Your task to perform on an android device: toggle priority inbox in the gmail app Image 0: 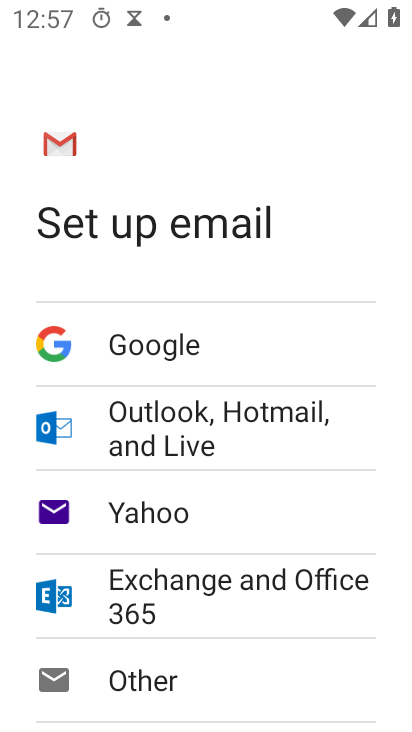
Step 0: press home button
Your task to perform on an android device: toggle priority inbox in the gmail app Image 1: 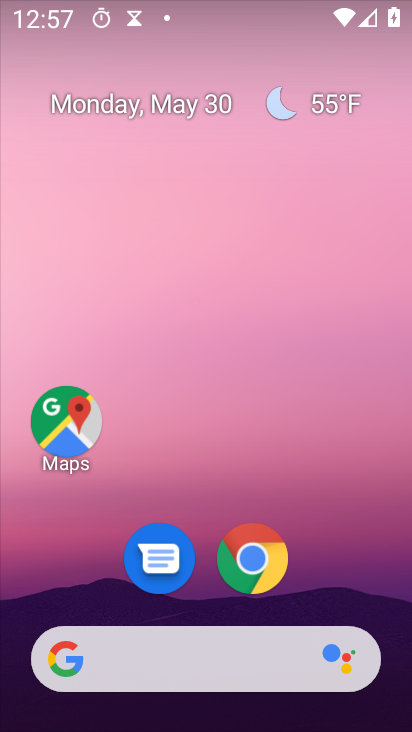
Step 1: drag from (347, 498) to (33, 440)
Your task to perform on an android device: toggle priority inbox in the gmail app Image 2: 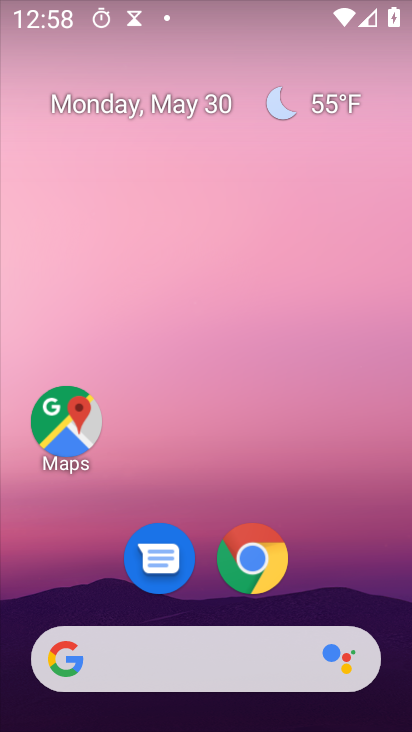
Step 2: drag from (344, 546) to (266, 49)
Your task to perform on an android device: toggle priority inbox in the gmail app Image 3: 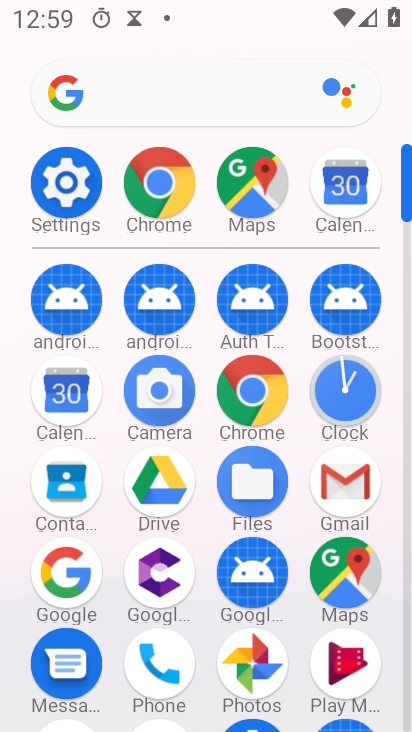
Step 3: click (337, 491)
Your task to perform on an android device: toggle priority inbox in the gmail app Image 4: 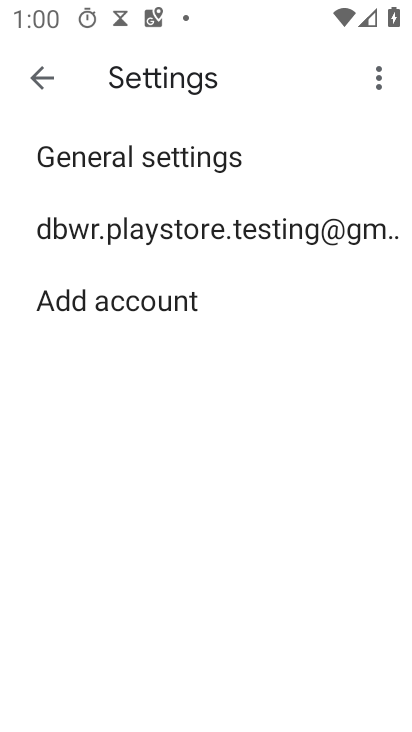
Step 4: click (34, 70)
Your task to perform on an android device: toggle priority inbox in the gmail app Image 5: 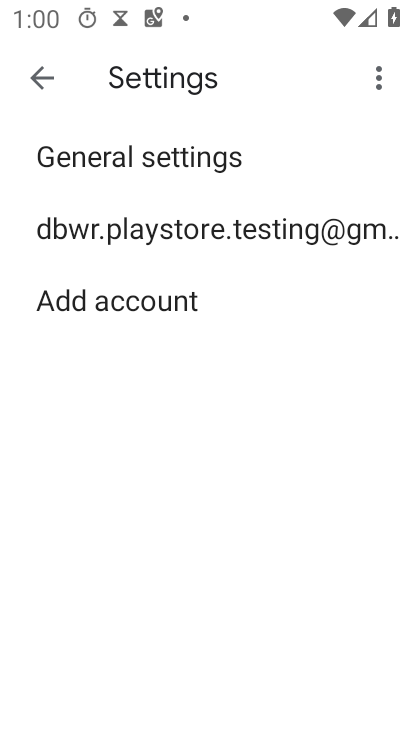
Step 5: click (33, 74)
Your task to perform on an android device: toggle priority inbox in the gmail app Image 6: 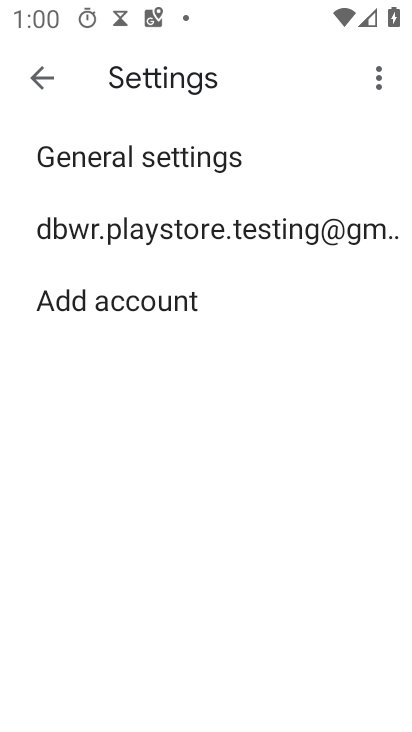
Step 6: click (57, 93)
Your task to perform on an android device: toggle priority inbox in the gmail app Image 7: 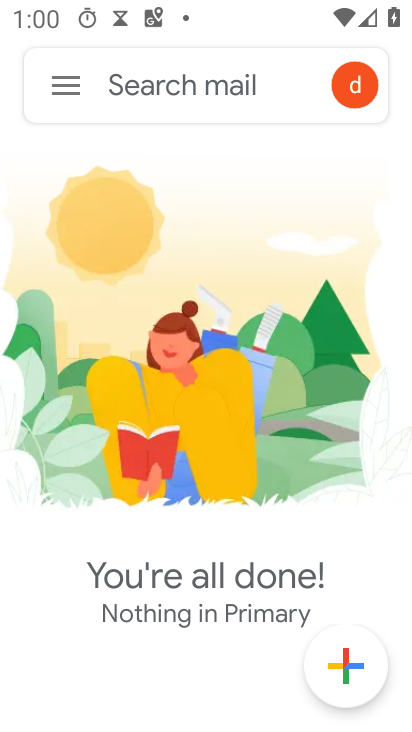
Step 7: click (57, 92)
Your task to perform on an android device: toggle priority inbox in the gmail app Image 8: 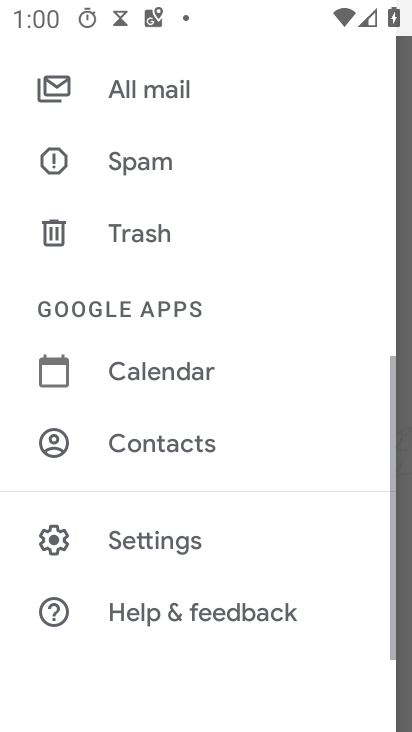
Step 8: drag from (202, 652) to (169, 295)
Your task to perform on an android device: toggle priority inbox in the gmail app Image 9: 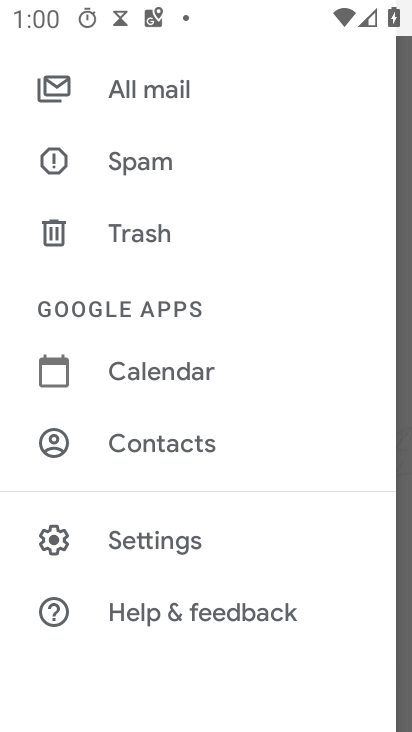
Step 9: click (143, 544)
Your task to perform on an android device: toggle priority inbox in the gmail app Image 10: 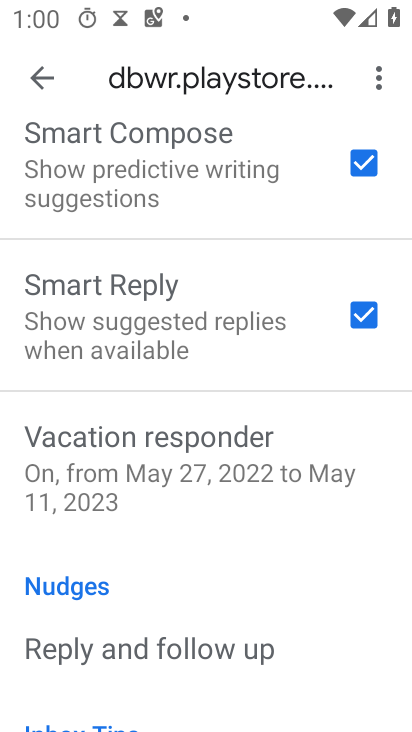
Step 10: drag from (100, 233) to (135, 644)
Your task to perform on an android device: toggle priority inbox in the gmail app Image 11: 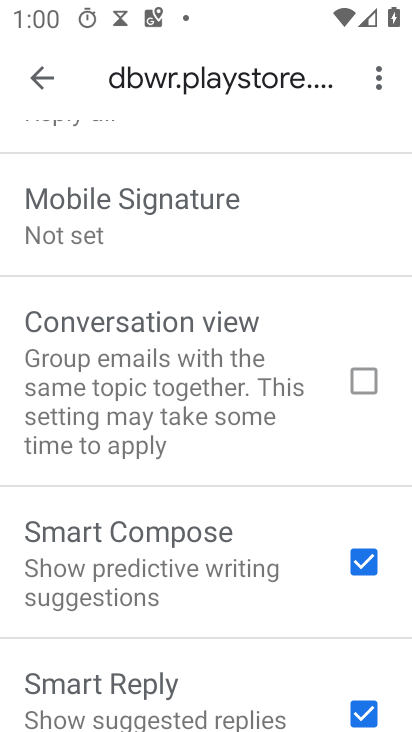
Step 11: drag from (230, 261) to (256, 606)
Your task to perform on an android device: toggle priority inbox in the gmail app Image 12: 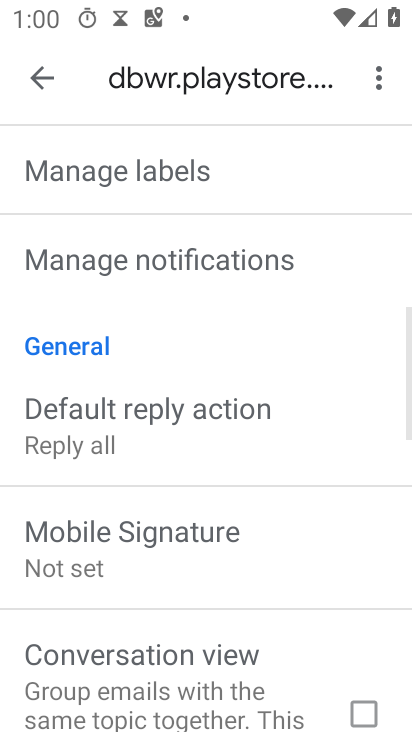
Step 12: drag from (218, 261) to (231, 591)
Your task to perform on an android device: toggle priority inbox in the gmail app Image 13: 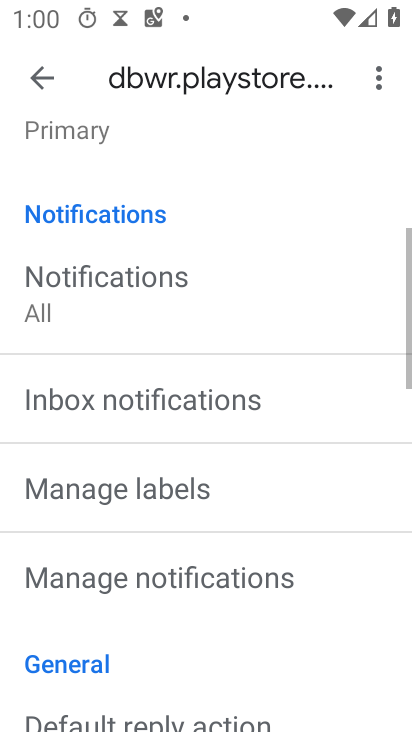
Step 13: drag from (193, 203) to (165, 643)
Your task to perform on an android device: toggle priority inbox in the gmail app Image 14: 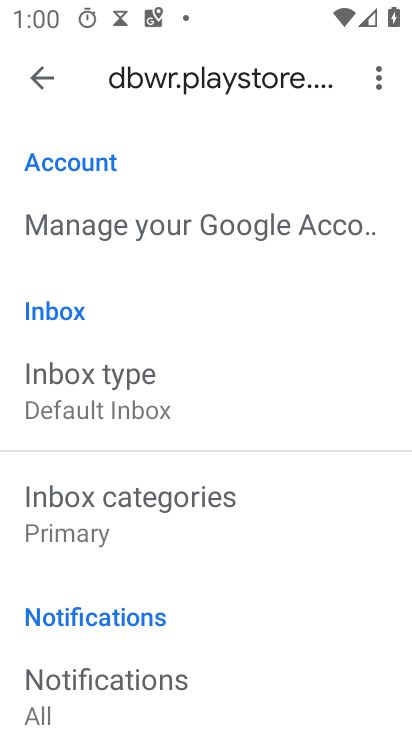
Step 14: click (96, 425)
Your task to perform on an android device: toggle priority inbox in the gmail app Image 15: 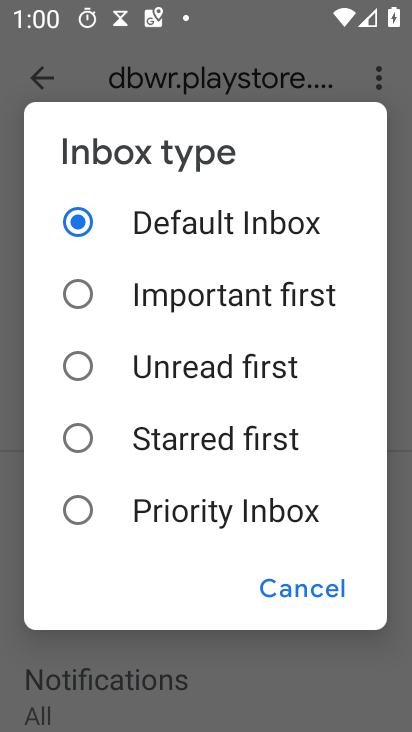
Step 15: click (144, 525)
Your task to perform on an android device: toggle priority inbox in the gmail app Image 16: 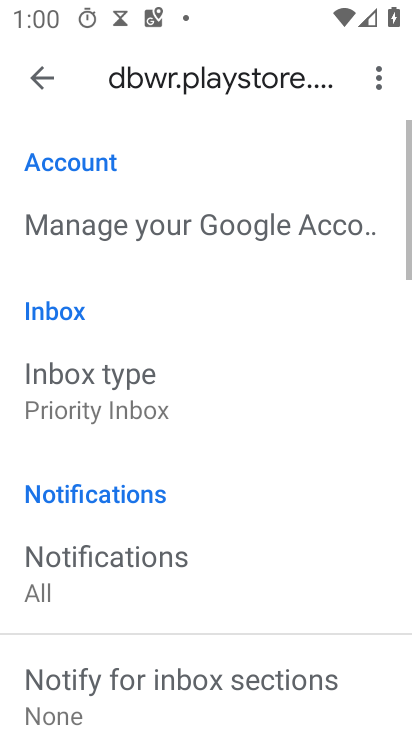
Step 16: task complete